Your task to perform on an android device: empty trash in the gmail app Image 0: 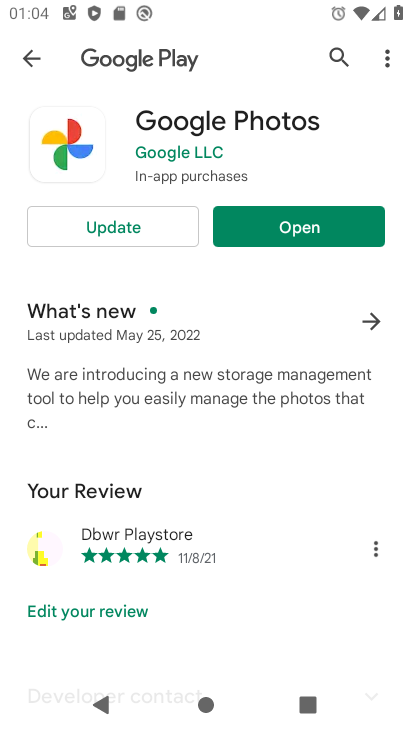
Step 0: press home button
Your task to perform on an android device: empty trash in the gmail app Image 1: 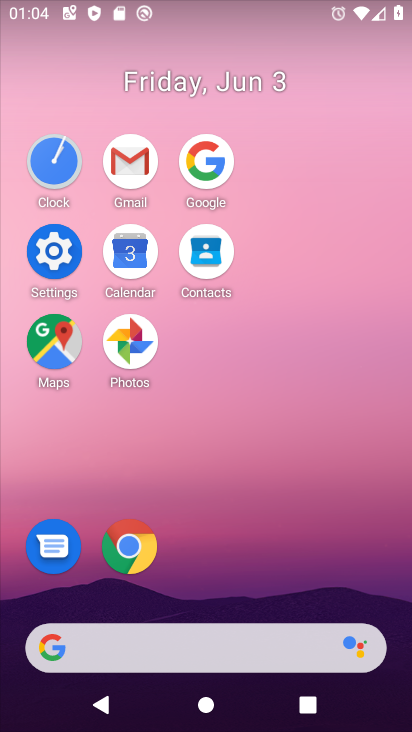
Step 1: click (147, 156)
Your task to perform on an android device: empty trash in the gmail app Image 2: 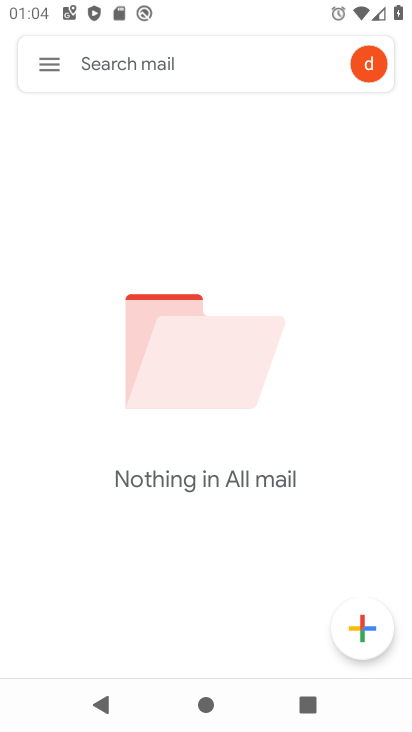
Step 2: click (58, 77)
Your task to perform on an android device: empty trash in the gmail app Image 3: 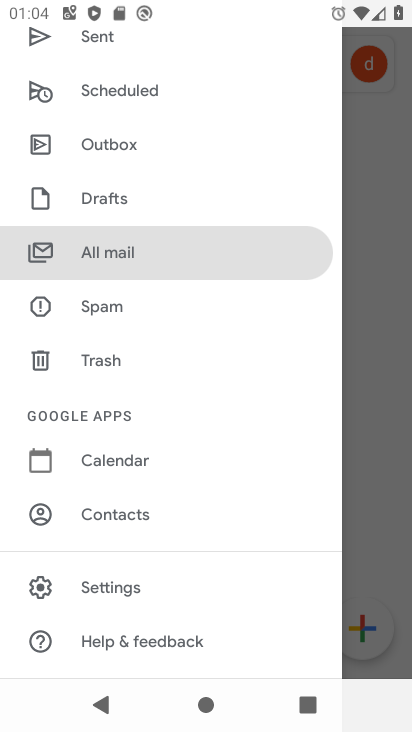
Step 3: click (136, 360)
Your task to perform on an android device: empty trash in the gmail app Image 4: 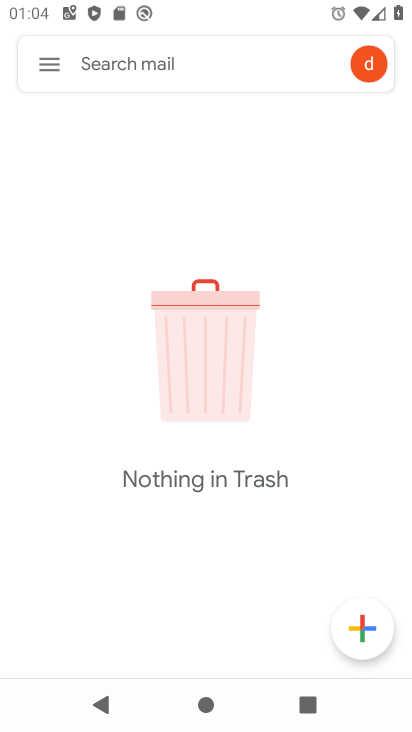
Step 4: task complete